Your task to perform on an android device: Open Google Maps and go to "Timeline" Image 0: 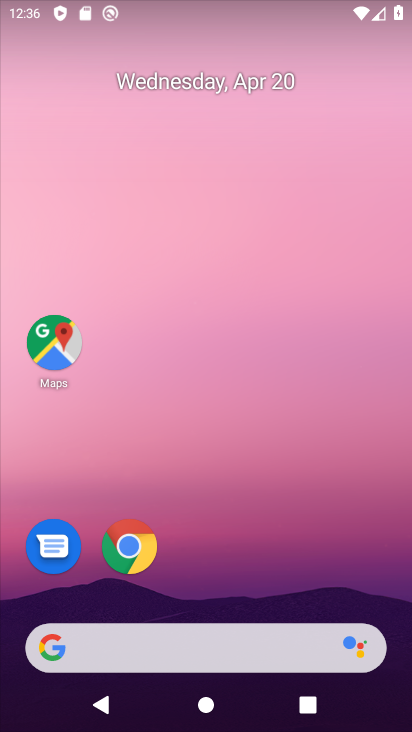
Step 0: drag from (206, 726) to (180, 283)
Your task to perform on an android device: Open Google Maps and go to "Timeline" Image 1: 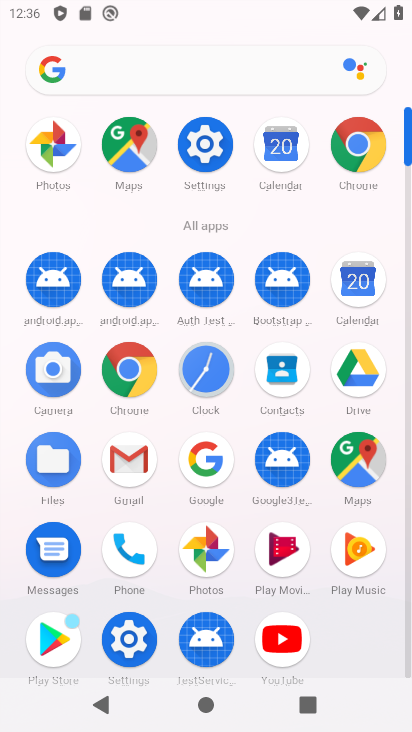
Step 1: click (363, 471)
Your task to perform on an android device: Open Google Maps and go to "Timeline" Image 2: 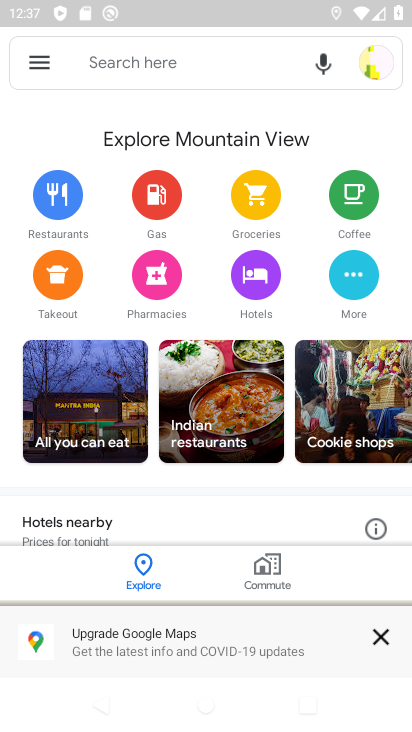
Step 2: click (35, 66)
Your task to perform on an android device: Open Google Maps and go to "Timeline" Image 3: 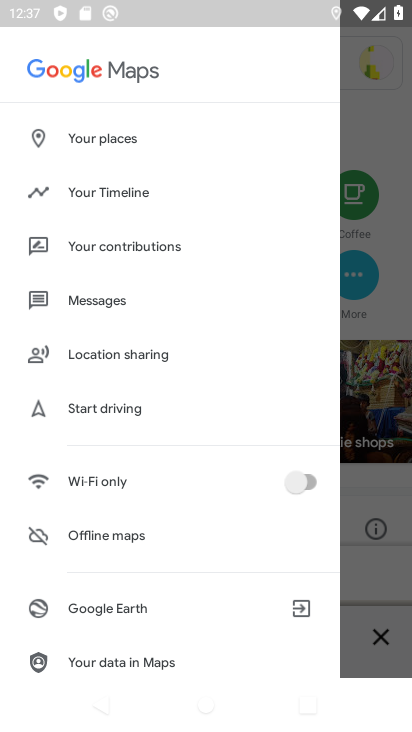
Step 3: click (111, 194)
Your task to perform on an android device: Open Google Maps and go to "Timeline" Image 4: 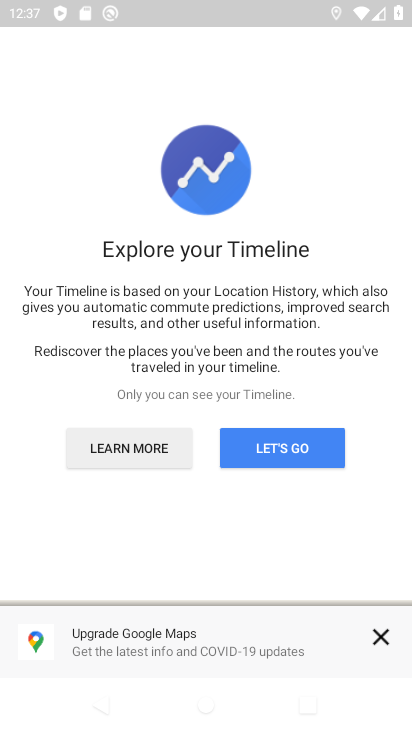
Step 4: click (382, 634)
Your task to perform on an android device: Open Google Maps and go to "Timeline" Image 5: 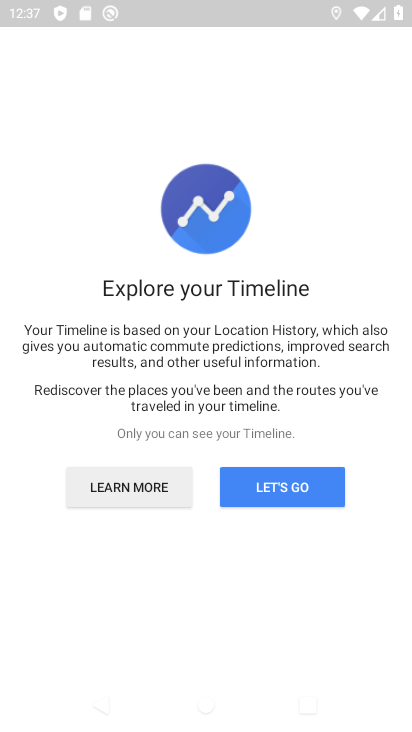
Step 5: click (278, 482)
Your task to perform on an android device: Open Google Maps and go to "Timeline" Image 6: 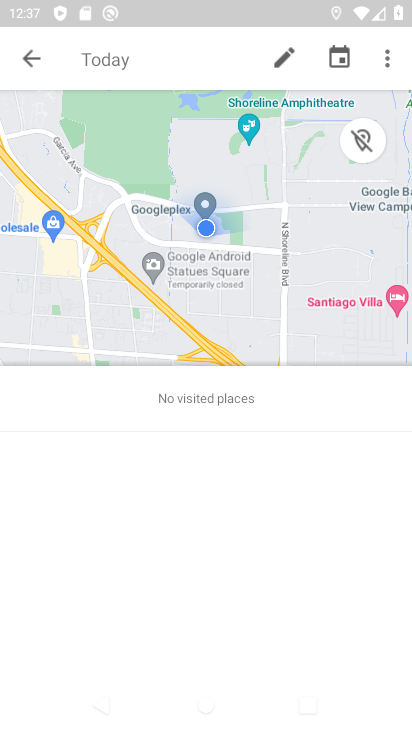
Step 6: task complete